Your task to perform on an android device: check google app version Image 0: 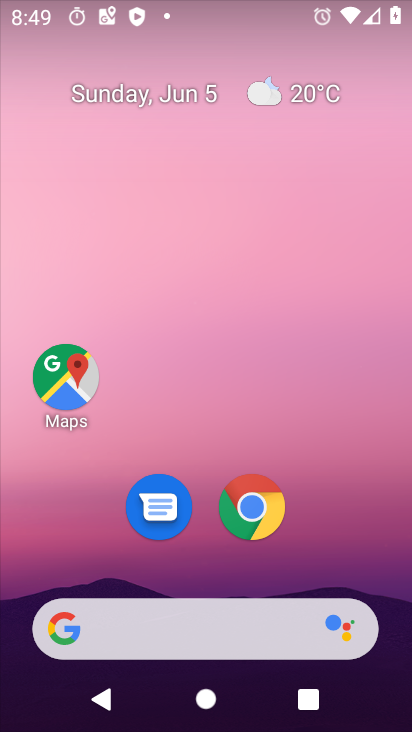
Step 0: drag from (326, 527) to (228, 3)
Your task to perform on an android device: check google app version Image 1: 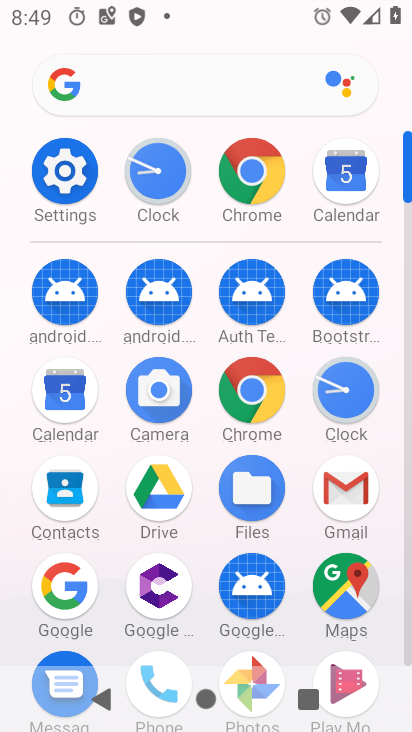
Step 1: drag from (14, 524) to (7, 264)
Your task to perform on an android device: check google app version Image 2: 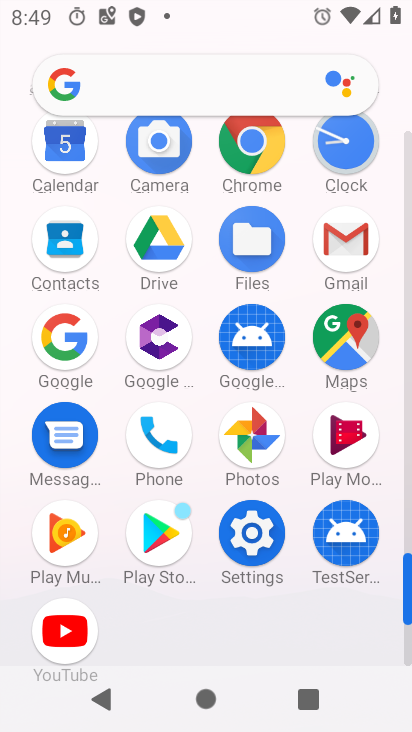
Step 2: click (66, 338)
Your task to perform on an android device: check google app version Image 3: 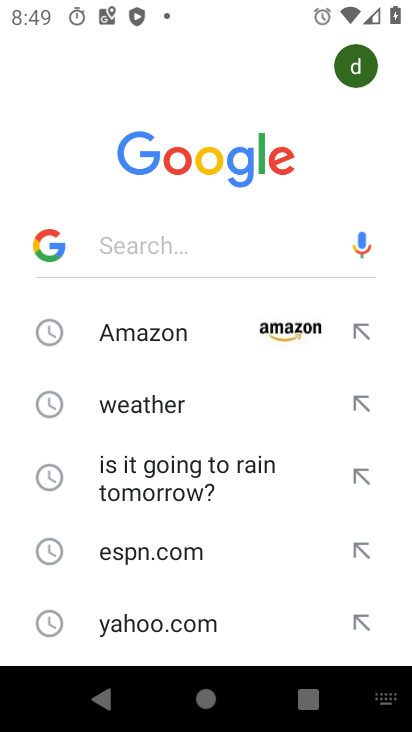
Step 3: press back button
Your task to perform on an android device: check google app version Image 4: 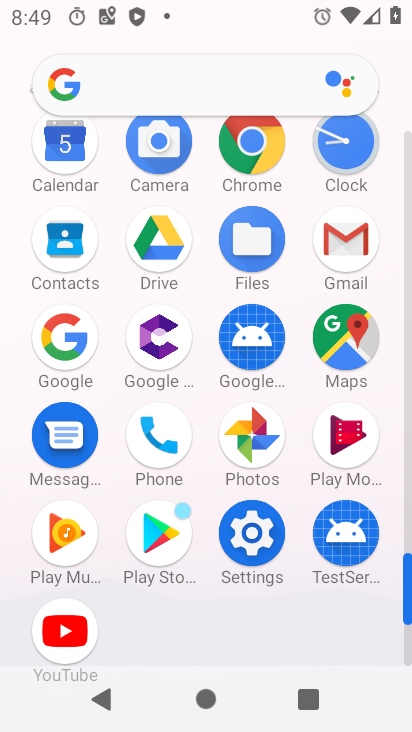
Step 4: click (59, 336)
Your task to perform on an android device: check google app version Image 5: 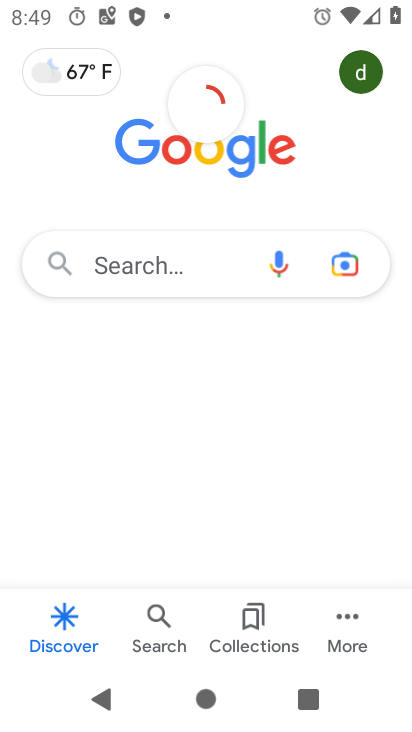
Step 5: drag from (343, 612) to (356, 552)
Your task to perform on an android device: check google app version Image 6: 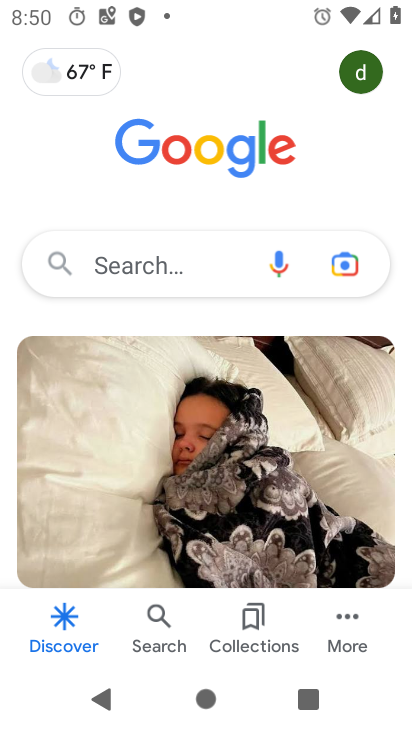
Step 6: click (355, 621)
Your task to perform on an android device: check google app version Image 7: 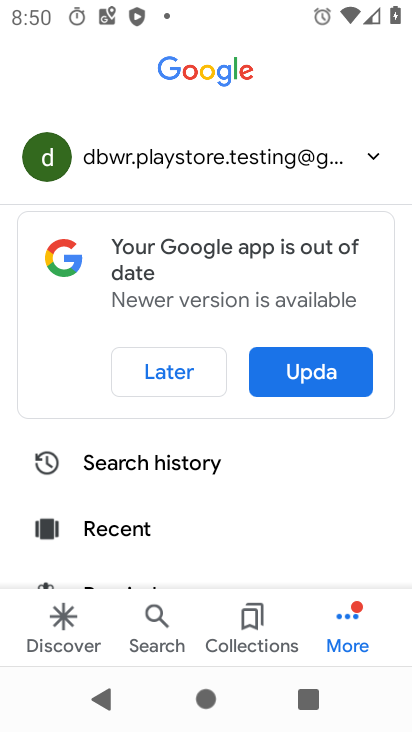
Step 7: drag from (206, 526) to (191, 169)
Your task to perform on an android device: check google app version Image 8: 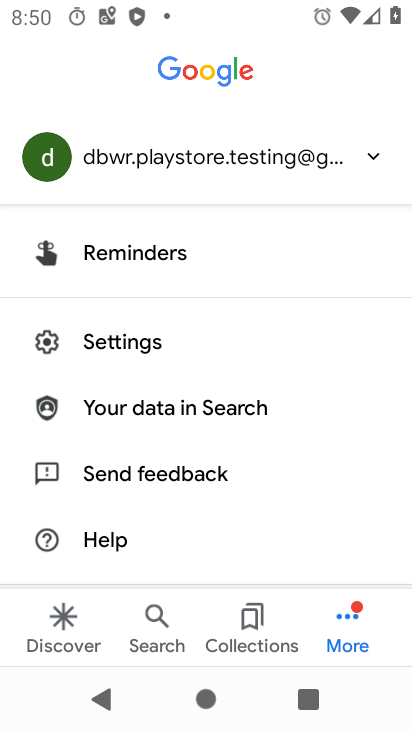
Step 8: click (118, 330)
Your task to perform on an android device: check google app version Image 9: 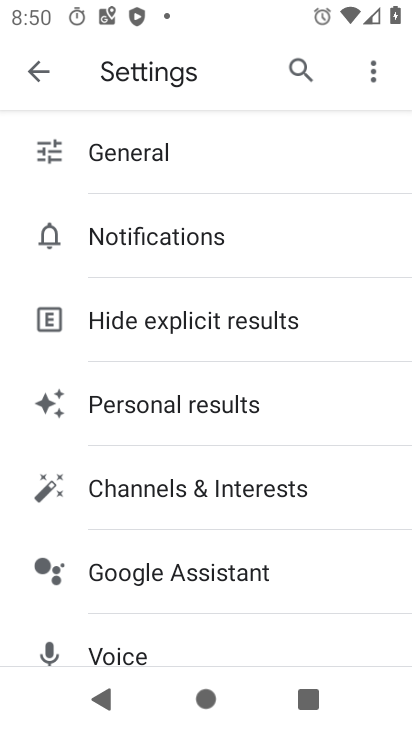
Step 9: drag from (184, 586) to (250, 177)
Your task to perform on an android device: check google app version Image 10: 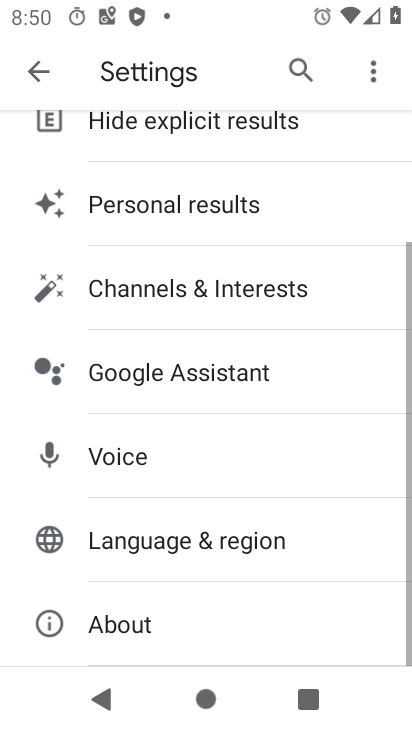
Step 10: click (182, 629)
Your task to perform on an android device: check google app version Image 11: 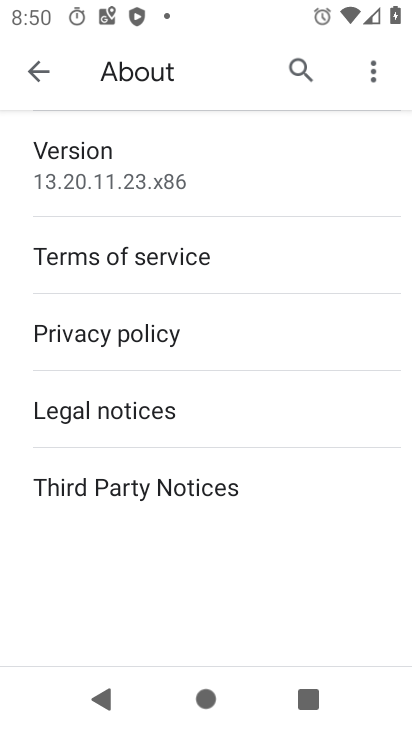
Step 11: task complete